Your task to perform on an android device: What's the weather going to be tomorrow? Image 0: 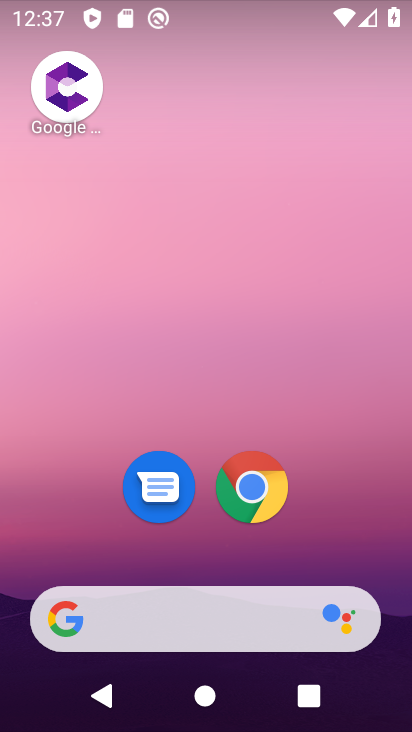
Step 0: drag from (209, 559) to (204, 132)
Your task to perform on an android device: What's the weather going to be tomorrow? Image 1: 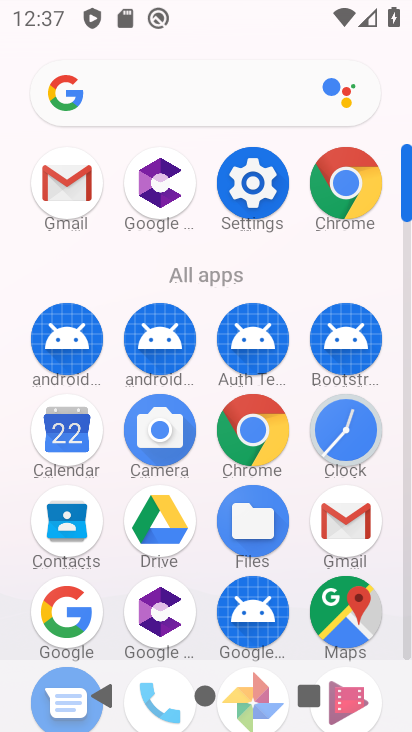
Step 1: click (85, 608)
Your task to perform on an android device: What's the weather going to be tomorrow? Image 2: 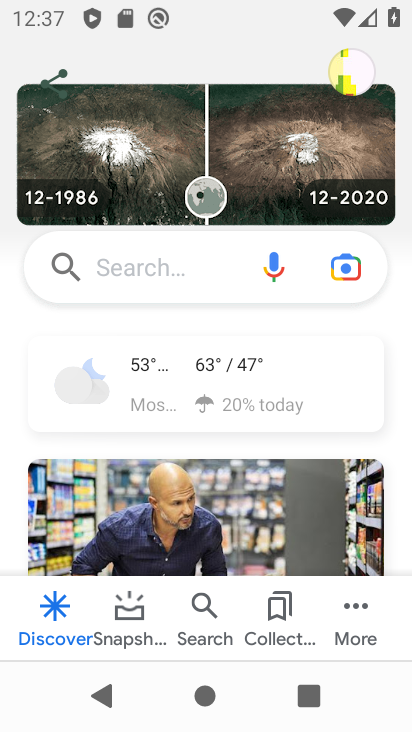
Step 2: click (151, 361)
Your task to perform on an android device: What's the weather going to be tomorrow? Image 3: 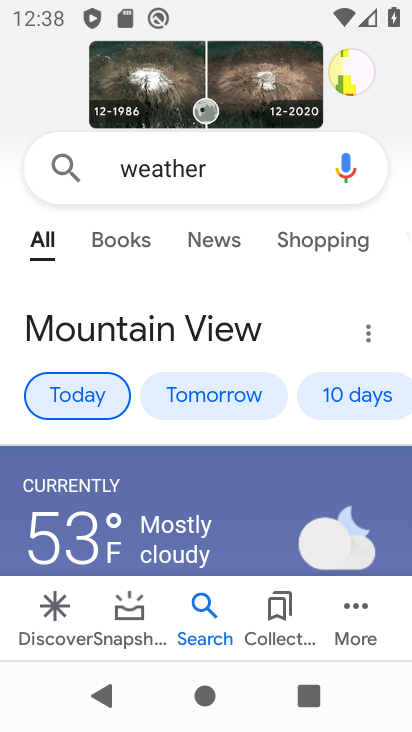
Step 3: click (224, 402)
Your task to perform on an android device: What's the weather going to be tomorrow? Image 4: 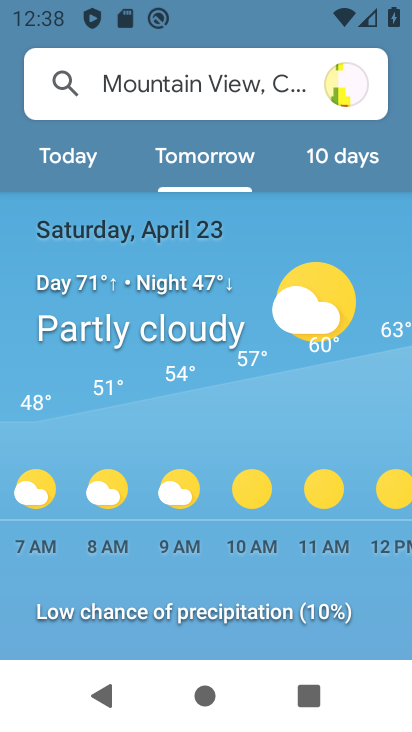
Step 4: task complete